Your task to perform on an android device: Open accessibility settings Image 0: 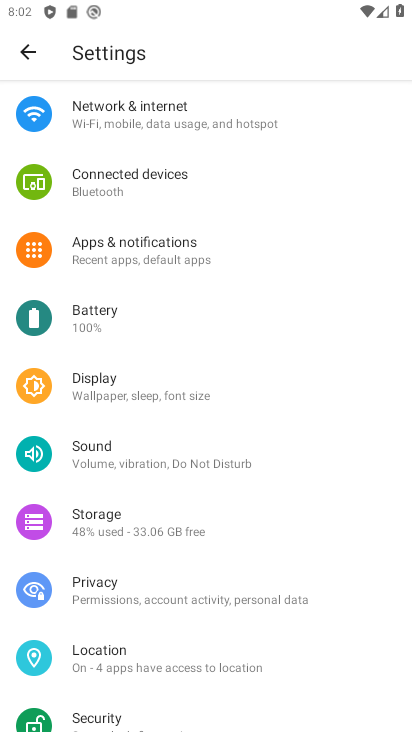
Step 0: drag from (176, 659) to (230, 271)
Your task to perform on an android device: Open accessibility settings Image 1: 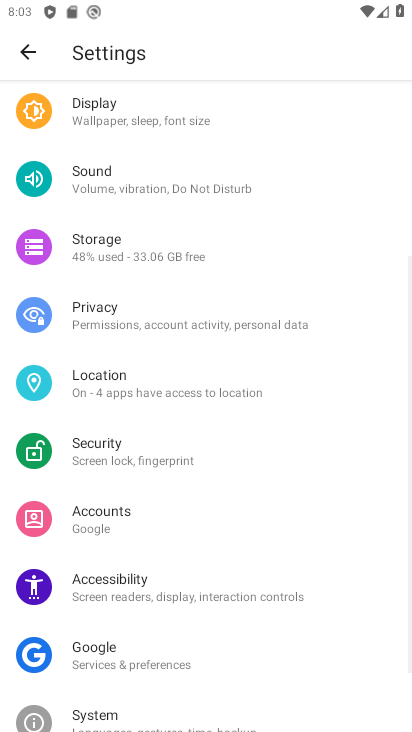
Step 1: click (181, 579)
Your task to perform on an android device: Open accessibility settings Image 2: 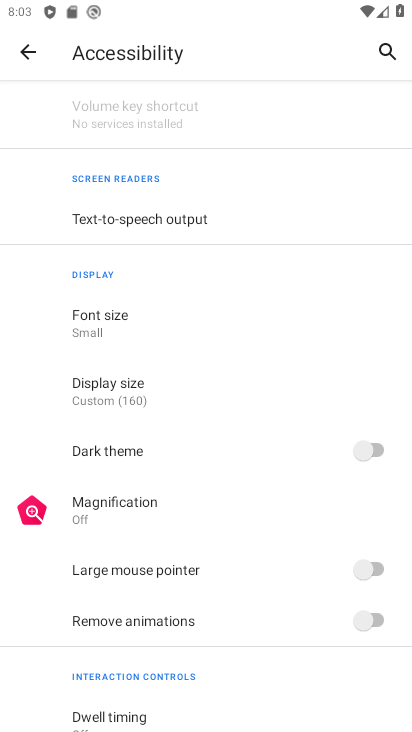
Step 2: task complete